Your task to perform on an android device: What's the weather? Image 0: 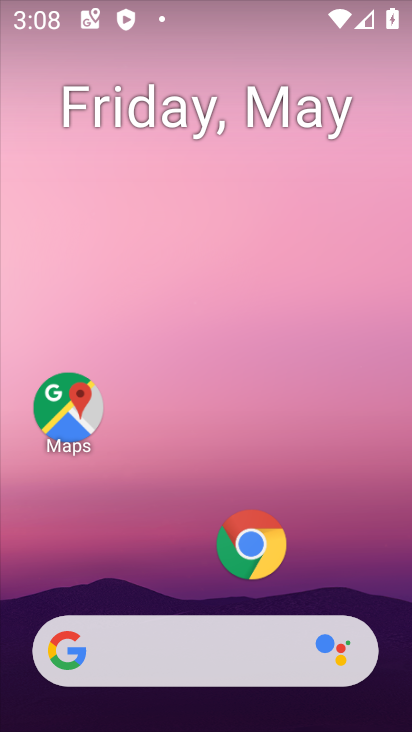
Step 0: drag from (193, 591) to (225, 195)
Your task to perform on an android device: What's the weather? Image 1: 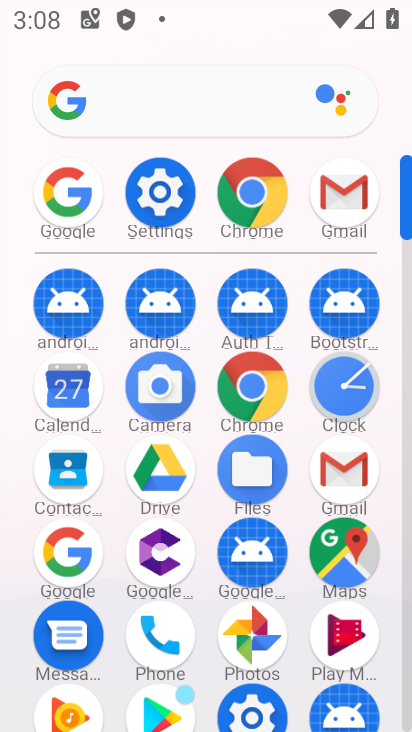
Step 1: click (78, 203)
Your task to perform on an android device: What's the weather? Image 2: 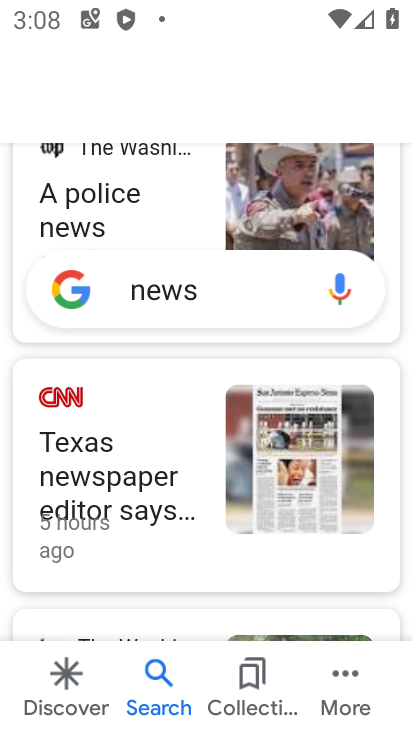
Step 2: drag from (166, 213) to (195, 553)
Your task to perform on an android device: What's the weather? Image 3: 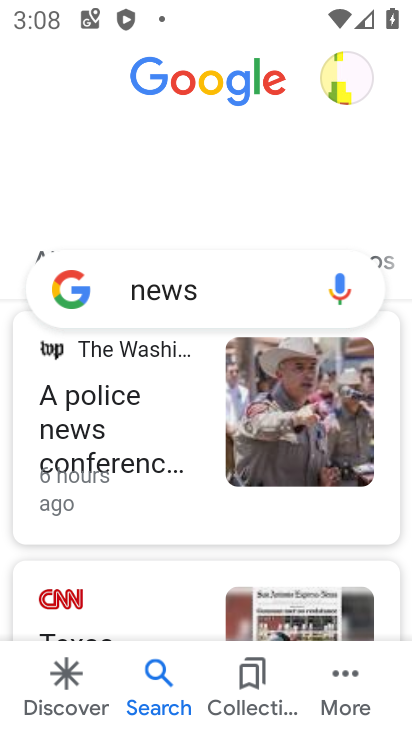
Step 3: drag from (226, 345) to (240, 502)
Your task to perform on an android device: What's the weather? Image 4: 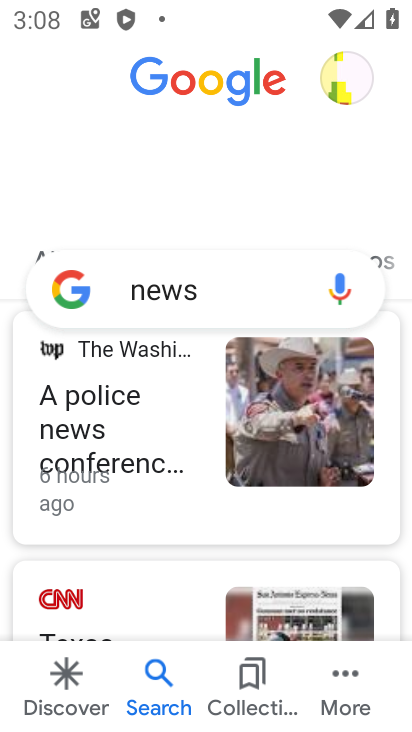
Step 4: click (215, 262)
Your task to perform on an android device: What's the weather? Image 5: 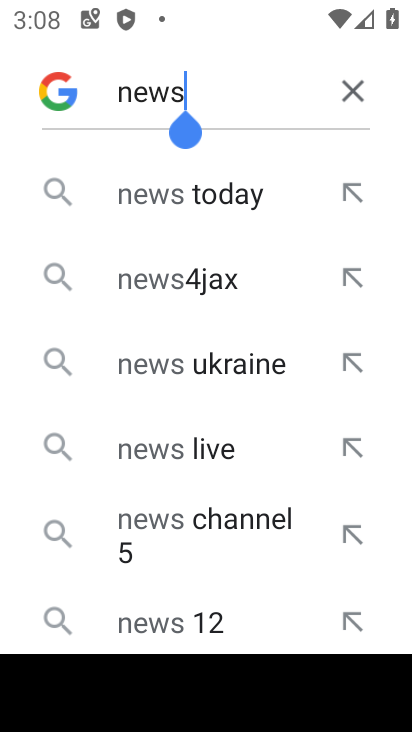
Step 5: click (350, 84)
Your task to perform on an android device: What's the weather? Image 6: 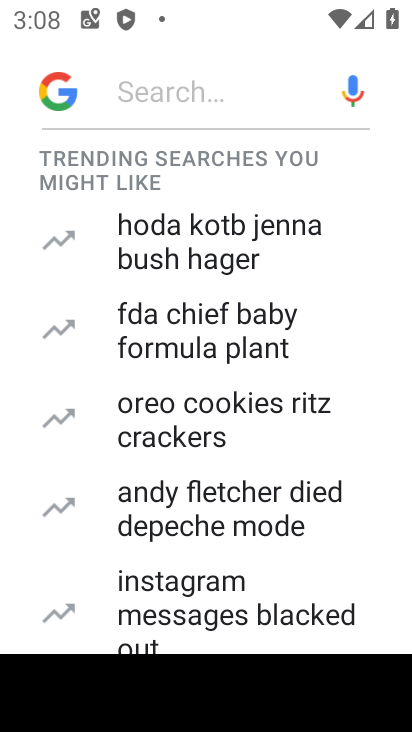
Step 6: type "weather"
Your task to perform on an android device: What's the weather? Image 7: 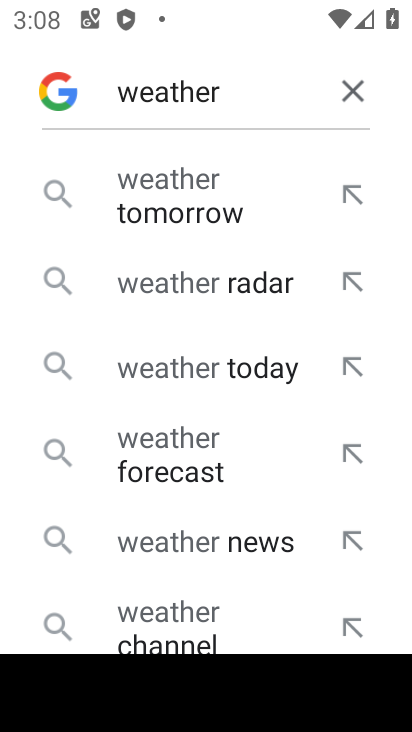
Step 7: click (233, 184)
Your task to perform on an android device: What's the weather? Image 8: 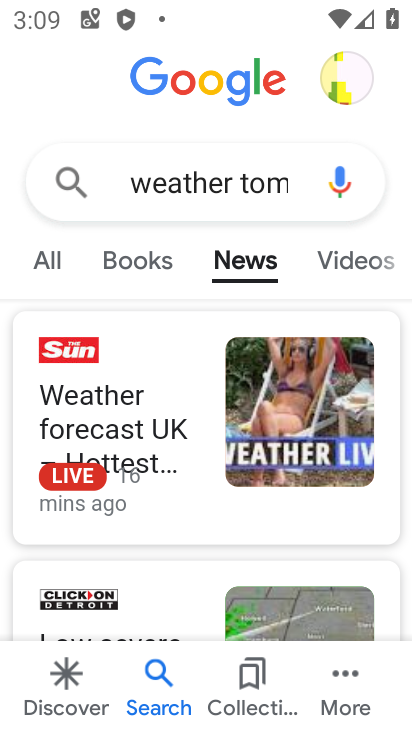
Step 8: click (49, 259)
Your task to perform on an android device: What's the weather? Image 9: 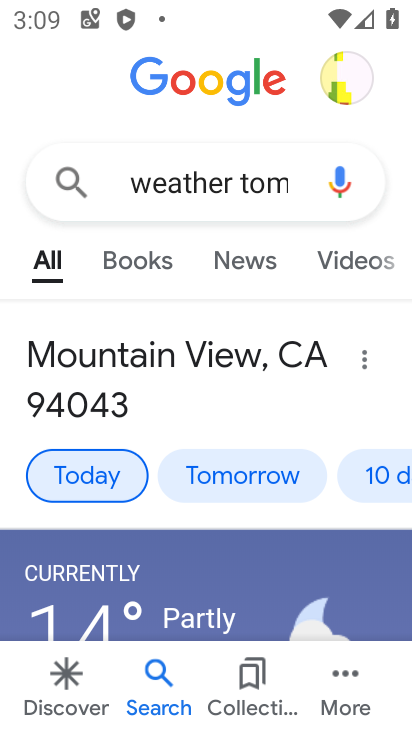
Step 9: task complete